Your task to perform on an android device: Search for vegetarian restaurants on Maps Image 0: 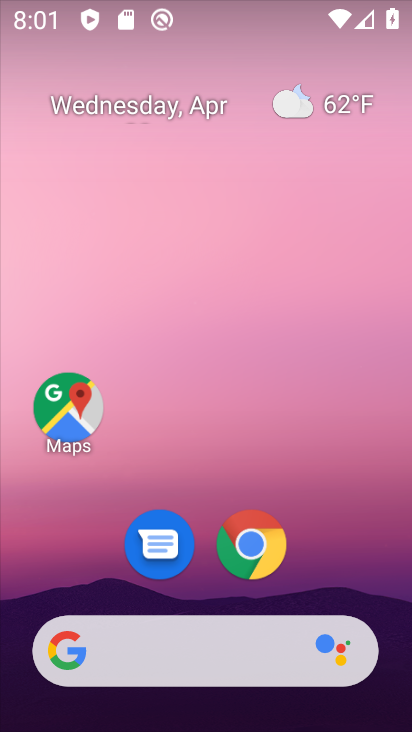
Step 0: click (205, 168)
Your task to perform on an android device: Search for vegetarian restaurants on Maps Image 1: 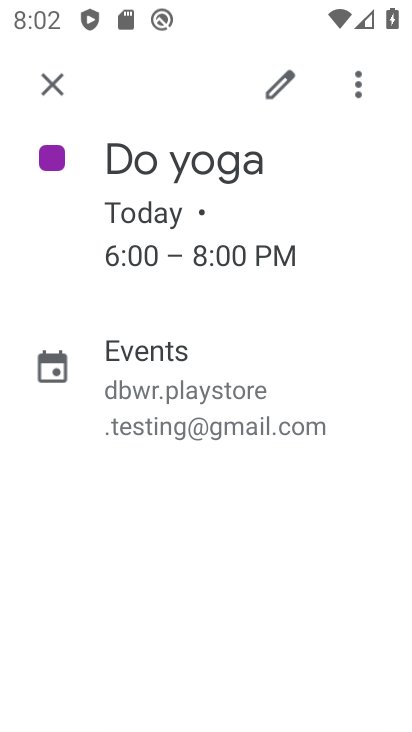
Step 1: press home button
Your task to perform on an android device: Search for vegetarian restaurants on Maps Image 2: 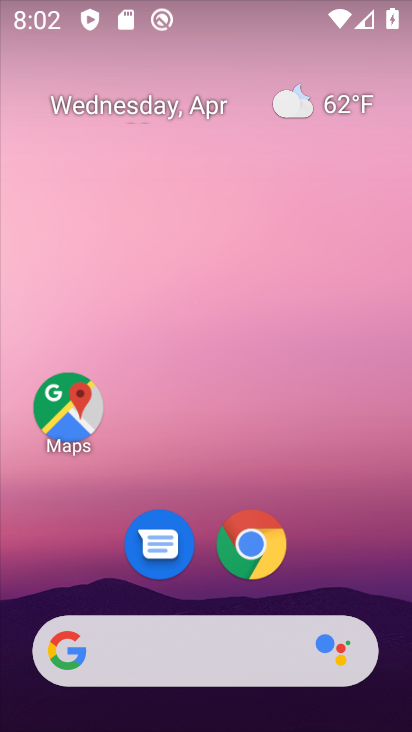
Step 2: drag from (225, 379) to (228, 293)
Your task to perform on an android device: Search for vegetarian restaurants on Maps Image 3: 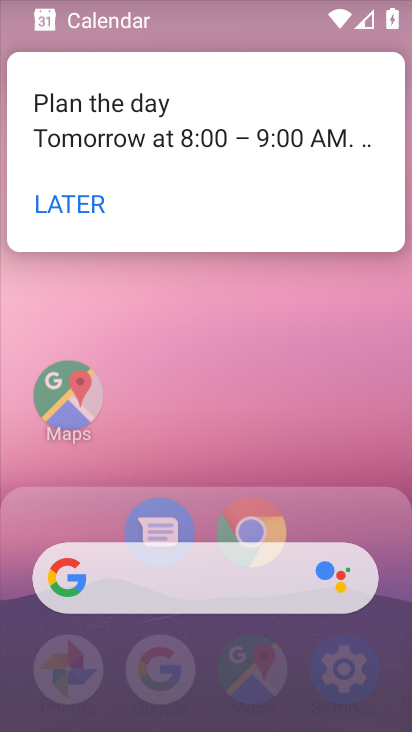
Step 3: click (74, 392)
Your task to perform on an android device: Search for vegetarian restaurants on Maps Image 4: 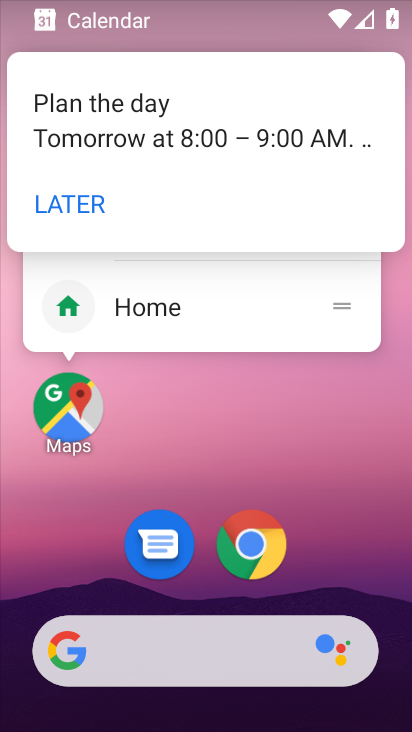
Step 4: click (74, 392)
Your task to perform on an android device: Search for vegetarian restaurants on Maps Image 5: 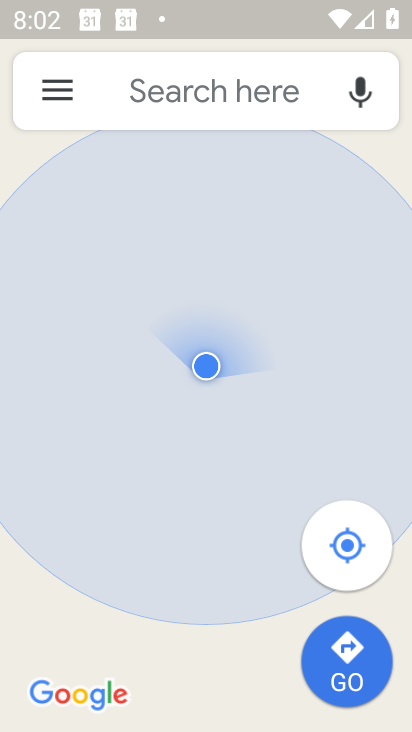
Step 5: click (153, 83)
Your task to perform on an android device: Search for vegetarian restaurants on Maps Image 6: 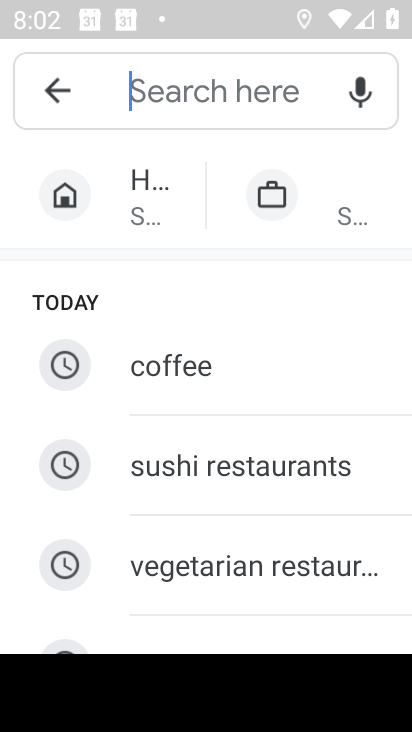
Step 6: click (195, 567)
Your task to perform on an android device: Search for vegetarian restaurants on Maps Image 7: 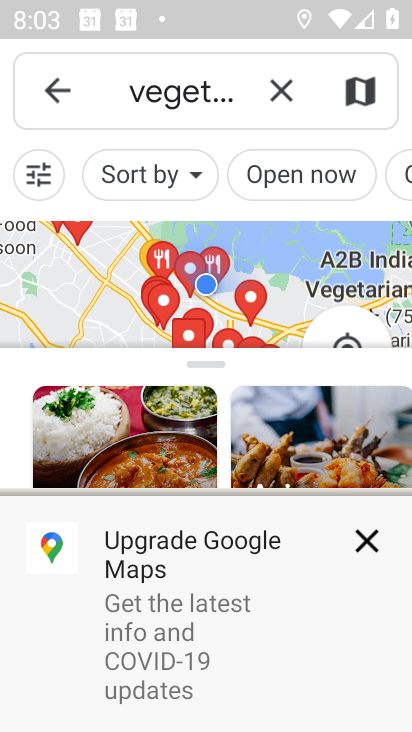
Step 7: task complete